Your task to perform on an android device: change alarm snooze length Image 0: 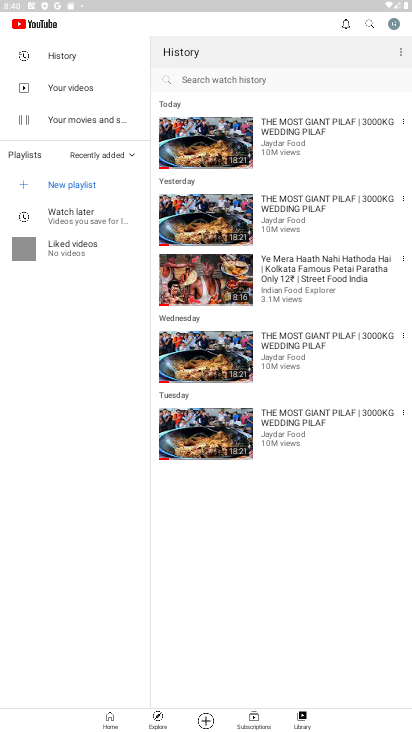
Step 0: press back button
Your task to perform on an android device: change alarm snooze length Image 1: 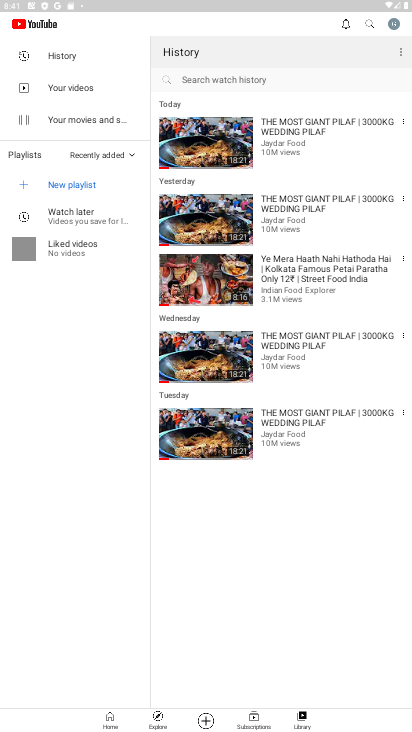
Step 1: task complete